Your task to perform on an android device: check data usage Image 0: 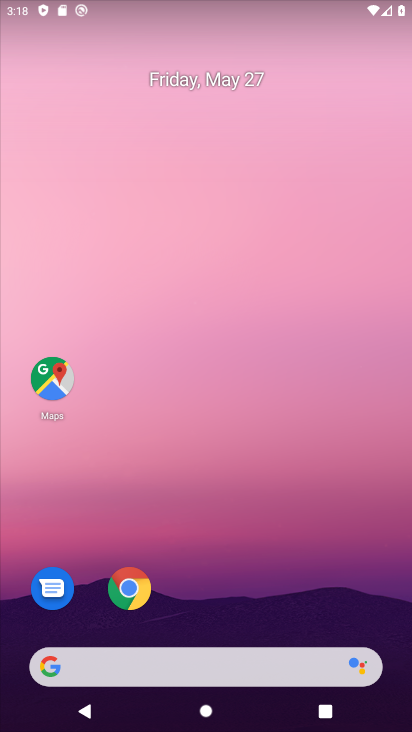
Step 0: drag from (198, 643) to (184, 184)
Your task to perform on an android device: check data usage Image 1: 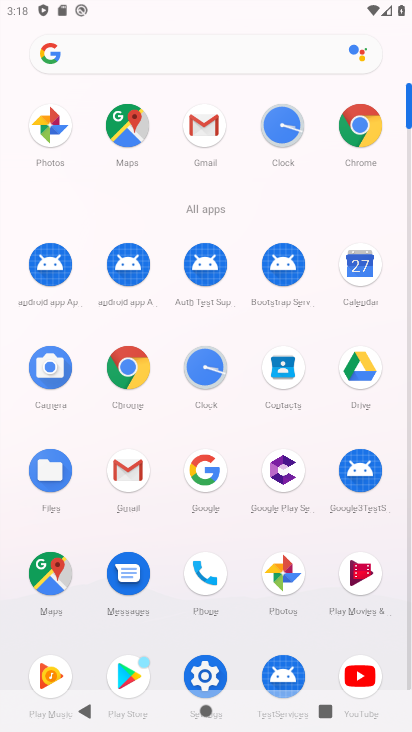
Step 1: click (211, 673)
Your task to perform on an android device: check data usage Image 2: 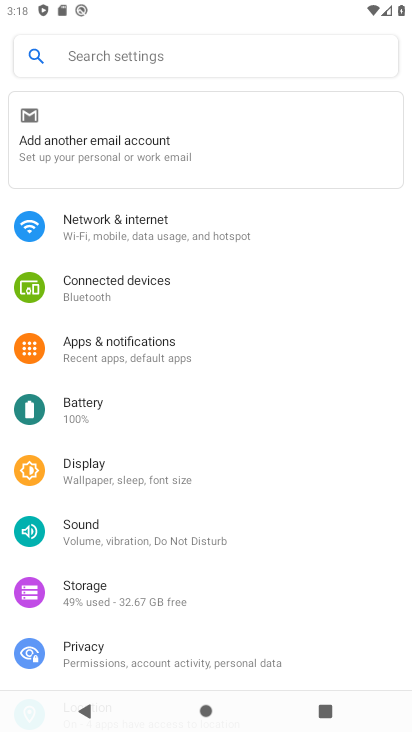
Step 2: click (148, 214)
Your task to perform on an android device: check data usage Image 3: 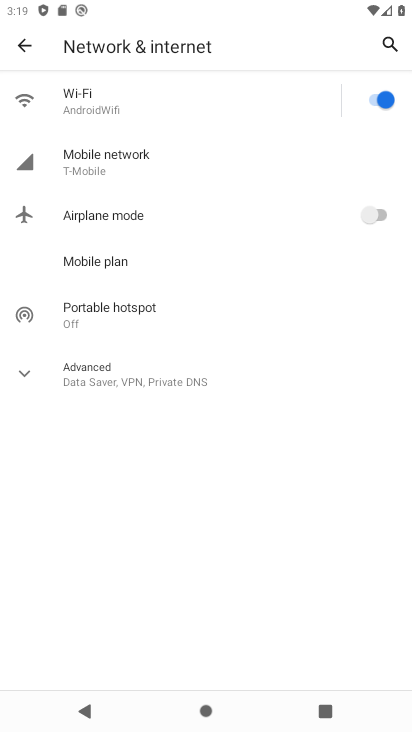
Step 3: click (117, 156)
Your task to perform on an android device: check data usage Image 4: 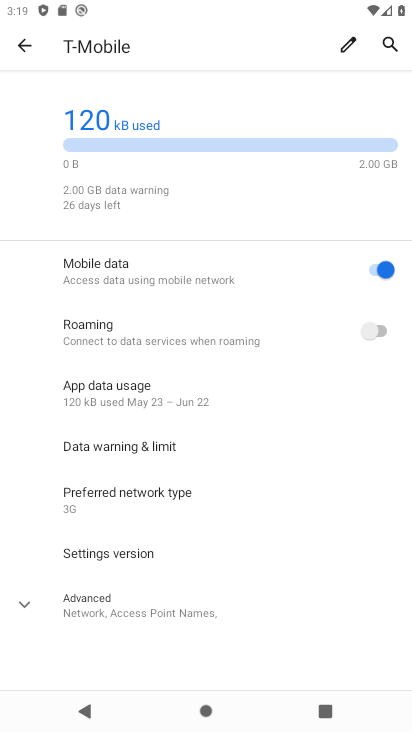
Step 4: task complete